Your task to perform on an android device: Go to battery settings Image 0: 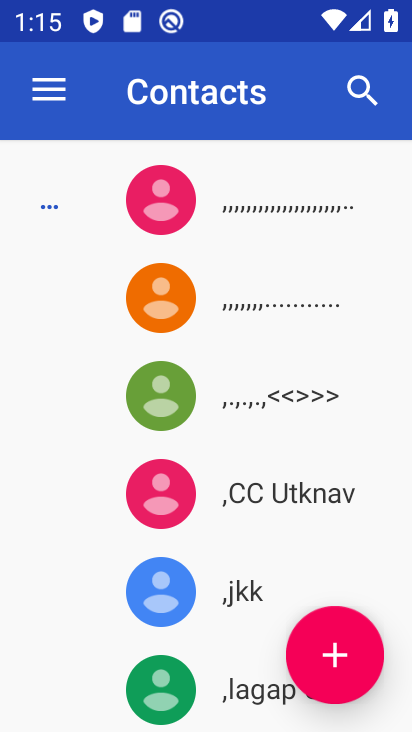
Step 0: press home button
Your task to perform on an android device: Go to battery settings Image 1: 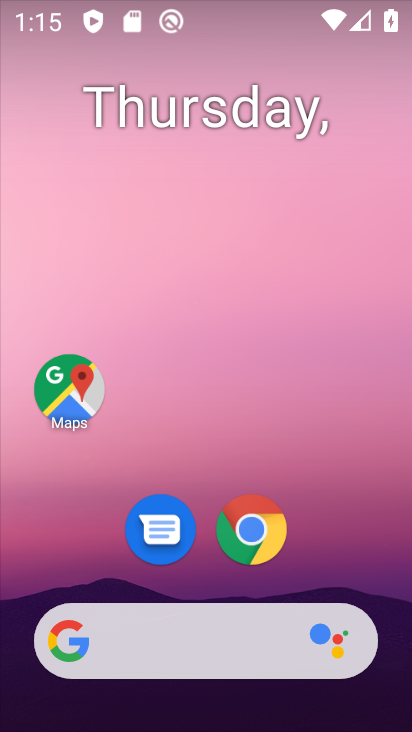
Step 1: drag from (206, 715) to (202, 117)
Your task to perform on an android device: Go to battery settings Image 2: 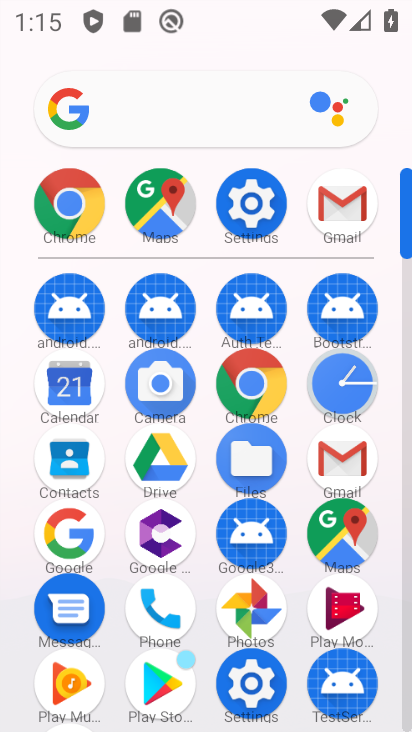
Step 2: click (245, 200)
Your task to perform on an android device: Go to battery settings Image 3: 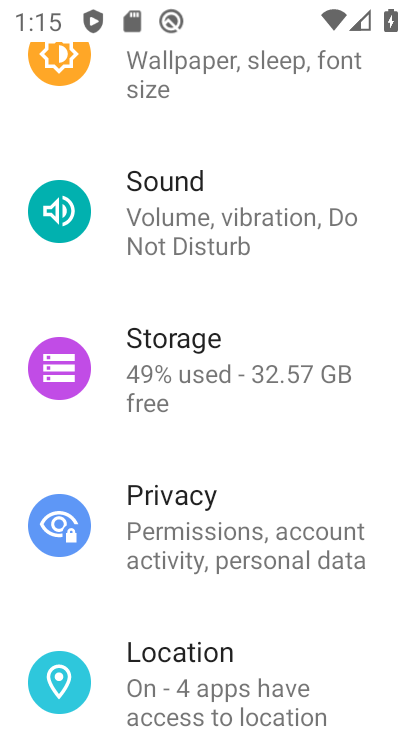
Step 3: drag from (204, 146) to (174, 532)
Your task to perform on an android device: Go to battery settings Image 4: 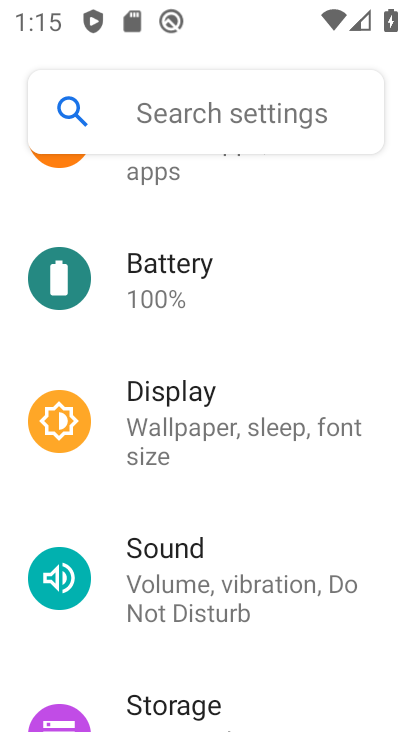
Step 4: click (157, 284)
Your task to perform on an android device: Go to battery settings Image 5: 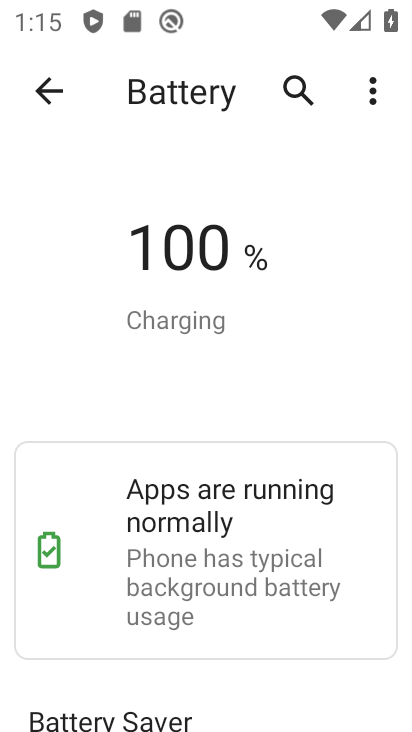
Step 5: task complete